Your task to perform on an android device: Open calendar and show me the first week of next month Image 0: 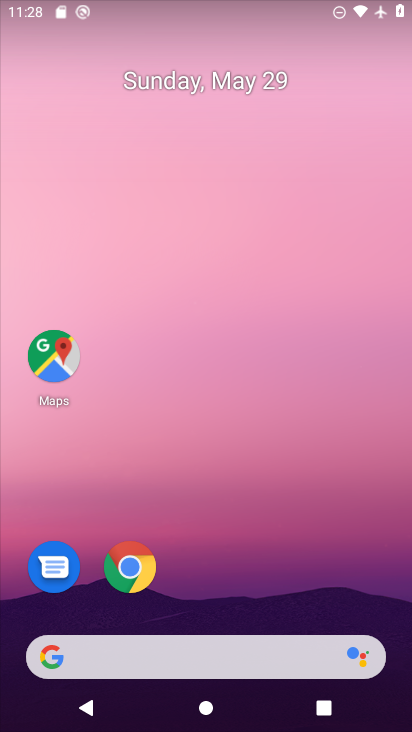
Step 0: drag from (384, 624) to (345, 44)
Your task to perform on an android device: Open calendar and show me the first week of next month Image 1: 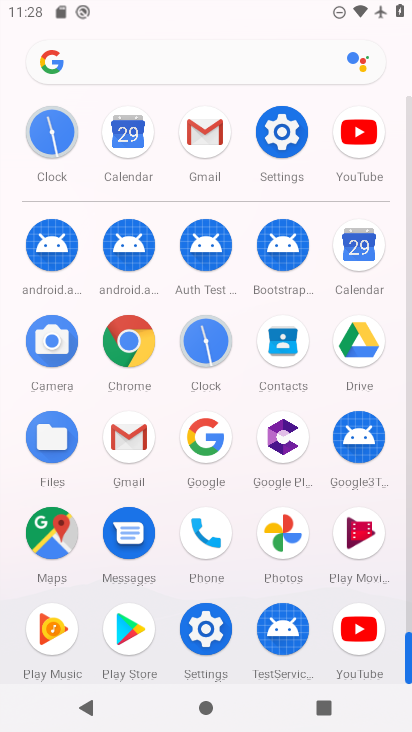
Step 1: click (408, 618)
Your task to perform on an android device: Open calendar and show me the first week of next month Image 2: 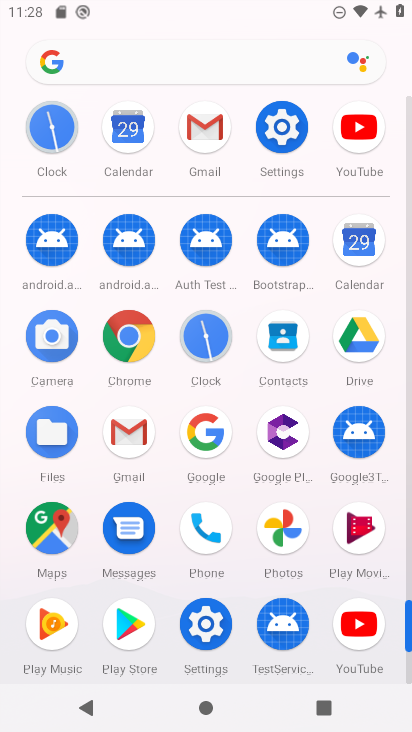
Step 2: click (356, 241)
Your task to perform on an android device: Open calendar and show me the first week of next month Image 3: 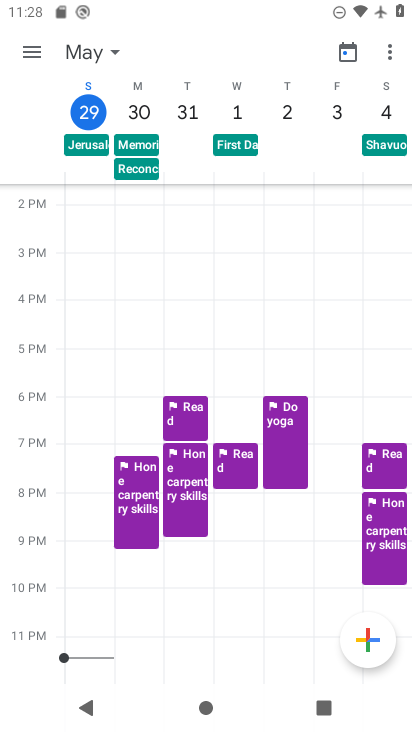
Step 3: click (21, 48)
Your task to perform on an android device: Open calendar and show me the first week of next month Image 4: 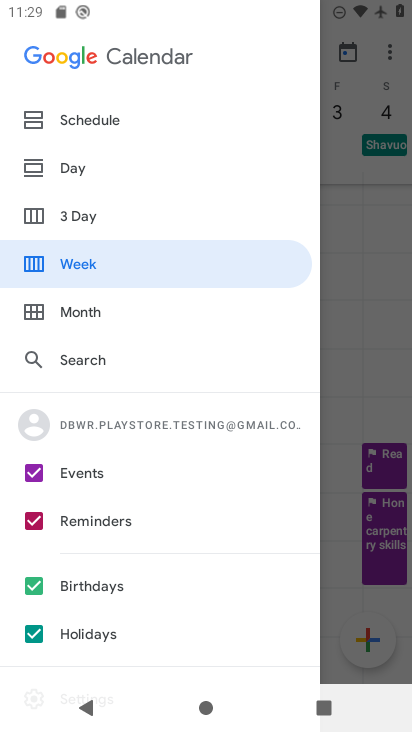
Step 4: click (93, 263)
Your task to perform on an android device: Open calendar and show me the first week of next month Image 5: 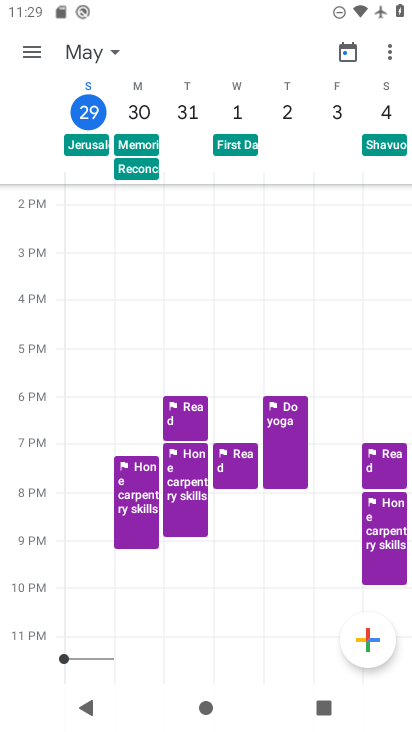
Step 5: click (113, 54)
Your task to perform on an android device: Open calendar and show me the first week of next month Image 6: 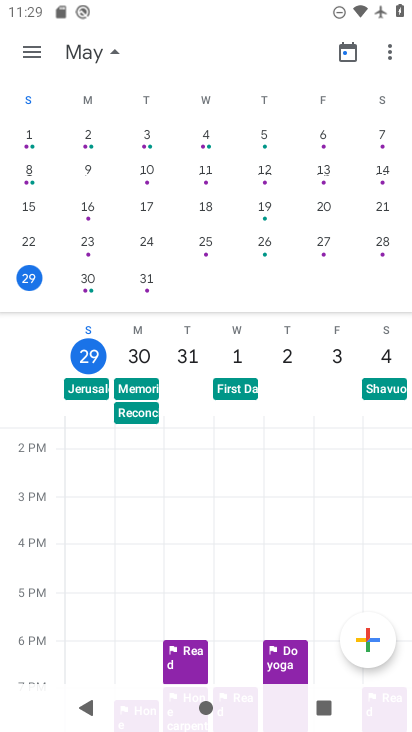
Step 6: drag from (378, 239) to (26, 206)
Your task to perform on an android device: Open calendar and show me the first week of next month Image 7: 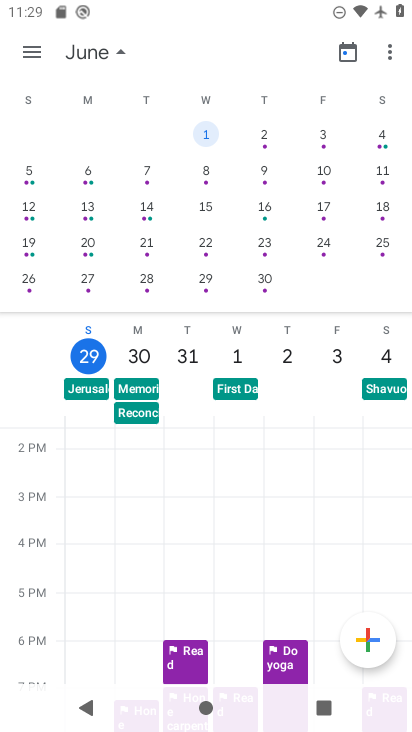
Step 7: click (26, 170)
Your task to perform on an android device: Open calendar and show me the first week of next month Image 8: 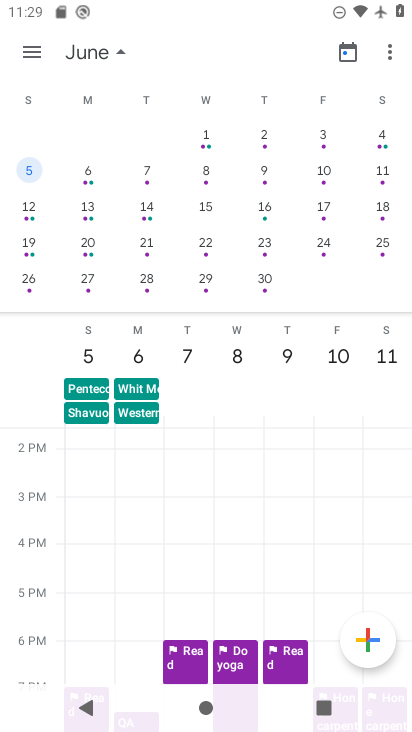
Step 8: task complete